Your task to perform on an android device: Open calendar and show me the fourth week of next month Image 0: 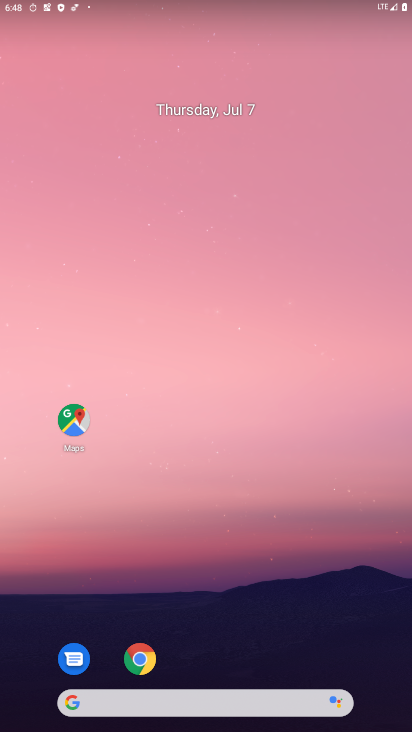
Step 0: drag from (379, 681) to (164, 2)
Your task to perform on an android device: Open calendar and show me the fourth week of next month Image 1: 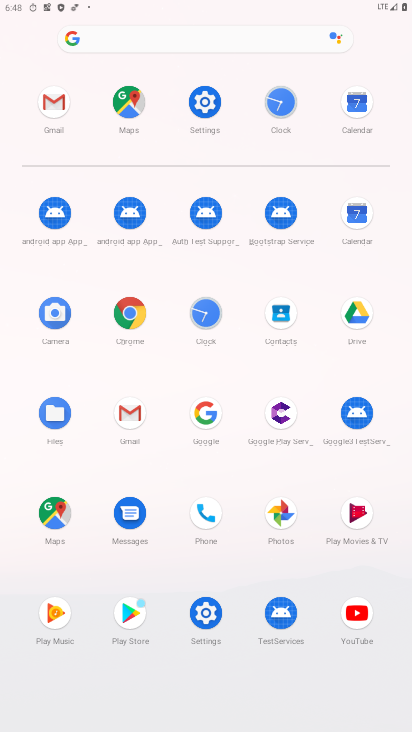
Step 1: click (358, 109)
Your task to perform on an android device: Open calendar and show me the fourth week of next month Image 2: 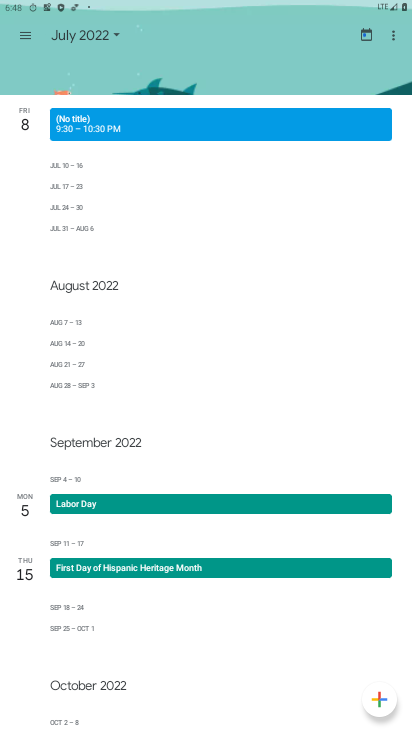
Step 2: click (61, 40)
Your task to perform on an android device: Open calendar and show me the fourth week of next month Image 3: 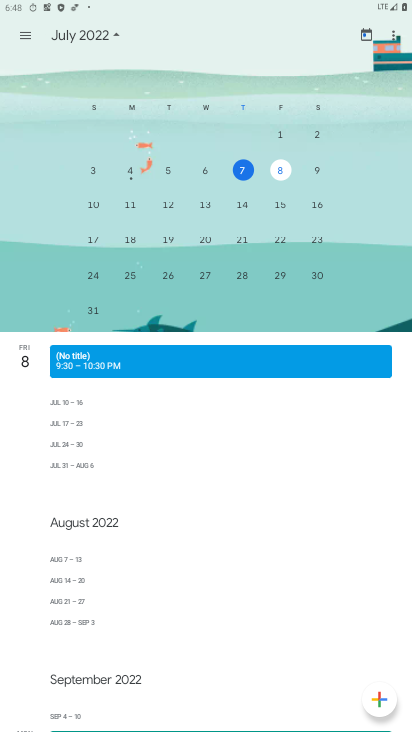
Step 3: drag from (309, 284) to (4, 245)
Your task to perform on an android device: Open calendar and show me the fourth week of next month Image 4: 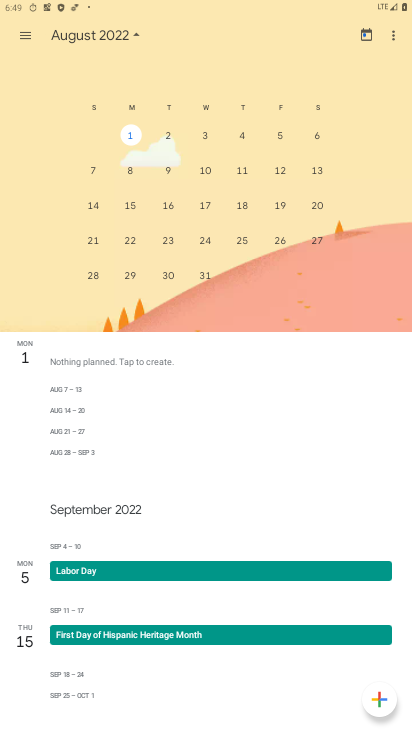
Step 4: click (210, 277)
Your task to perform on an android device: Open calendar and show me the fourth week of next month Image 5: 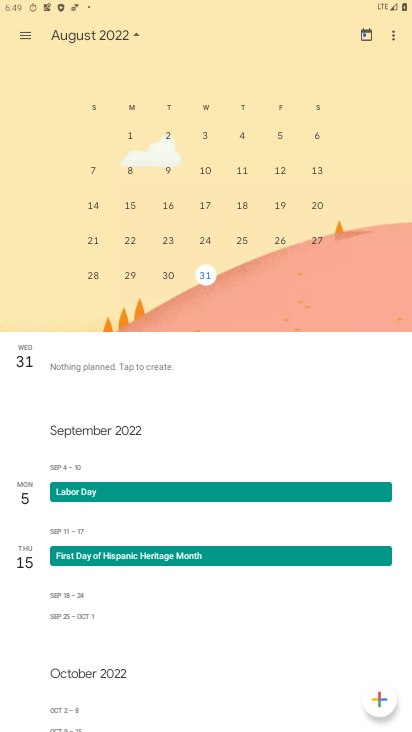
Step 5: task complete